Your task to perform on an android device: change the clock display to analog Image 0: 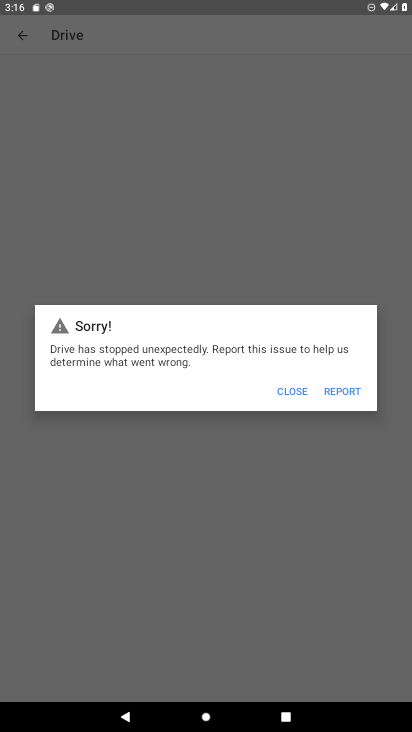
Step 0: press home button
Your task to perform on an android device: change the clock display to analog Image 1: 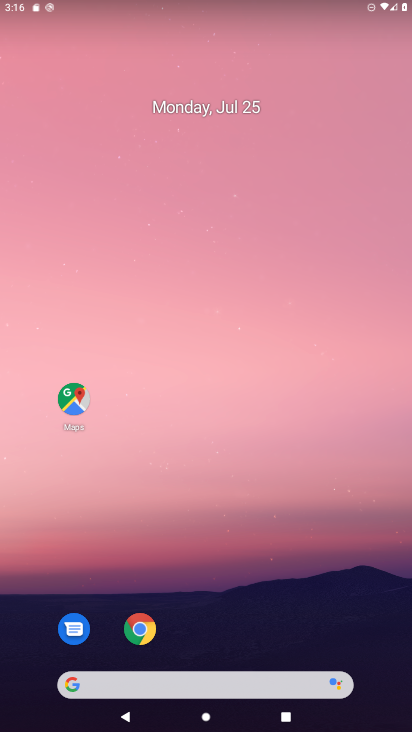
Step 1: drag from (273, 624) to (203, 0)
Your task to perform on an android device: change the clock display to analog Image 2: 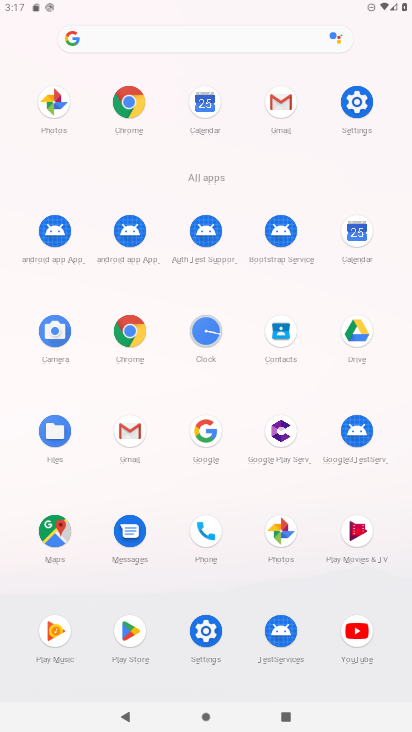
Step 2: click (199, 343)
Your task to perform on an android device: change the clock display to analog Image 3: 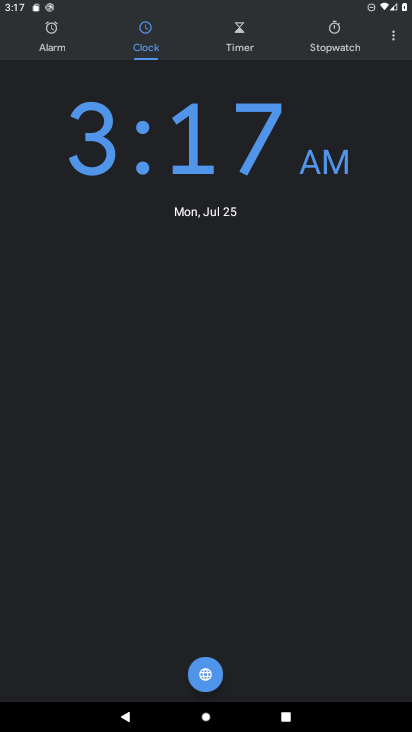
Step 3: click (396, 36)
Your task to perform on an android device: change the clock display to analog Image 4: 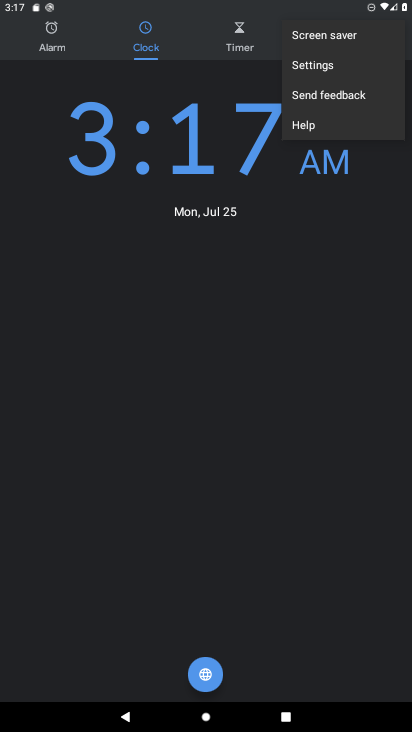
Step 4: click (329, 62)
Your task to perform on an android device: change the clock display to analog Image 5: 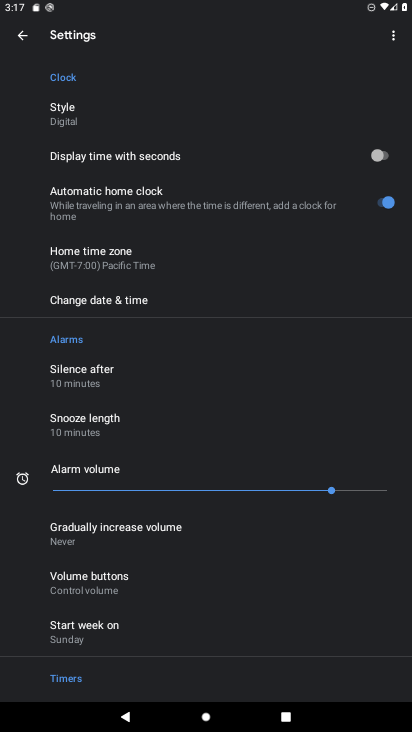
Step 5: click (96, 110)
Your task to perform on an android device: change the clock display to analog Image 6: 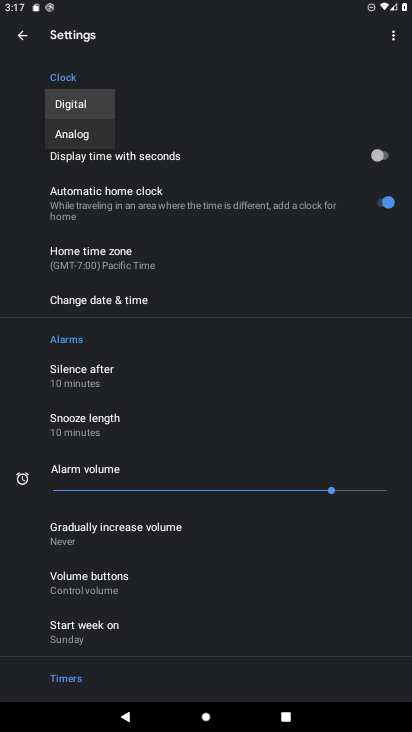
Step 6: click (100, 137)
Your task to perform on an android device: change the clock display to analog Image 7: 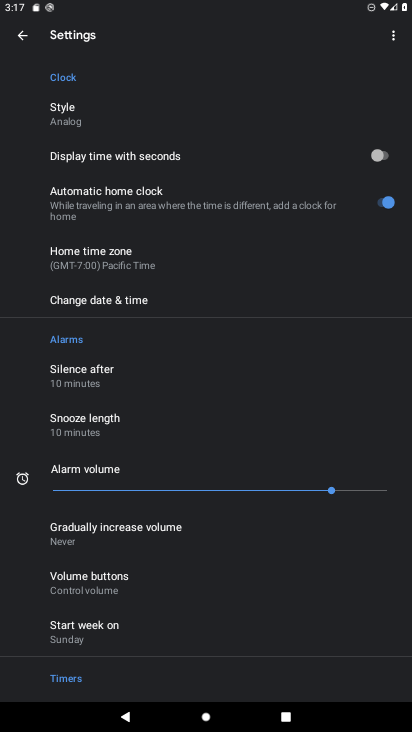
Step 7: task complete